Your task to perform on an android device: toggle javascript in the chrome app Image 0: 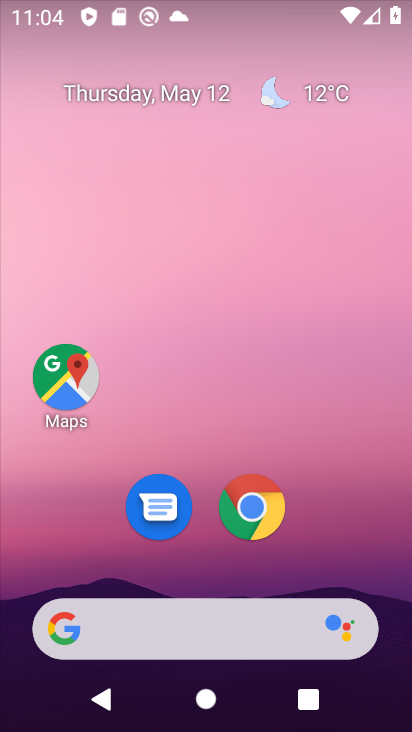
Step 0: click (255, 493)
Your task to perform on an android device: toggle javascript in the chrome app Image 1: 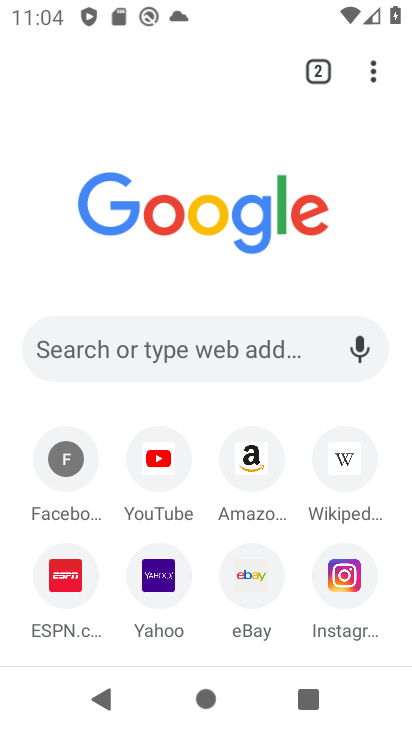
Step 1: click (385, 78)
Your task to perform on an android device: toggle javascript in the chrome app Image 2: 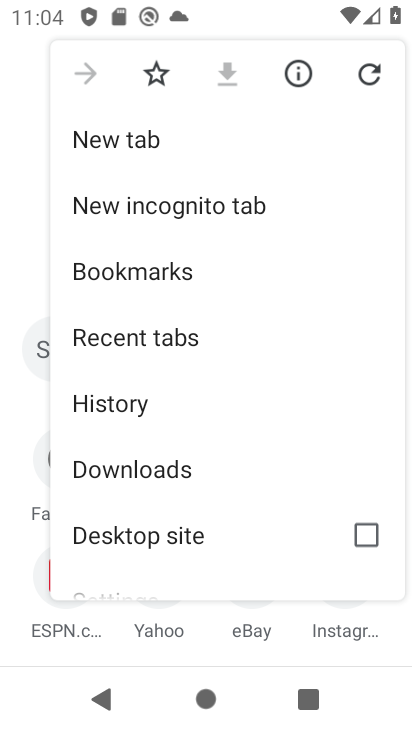
Step 2: drag from (162, 460) to (174, 171)
Your task to perform on an android device: toggle javascript in the chrome app Image 3: 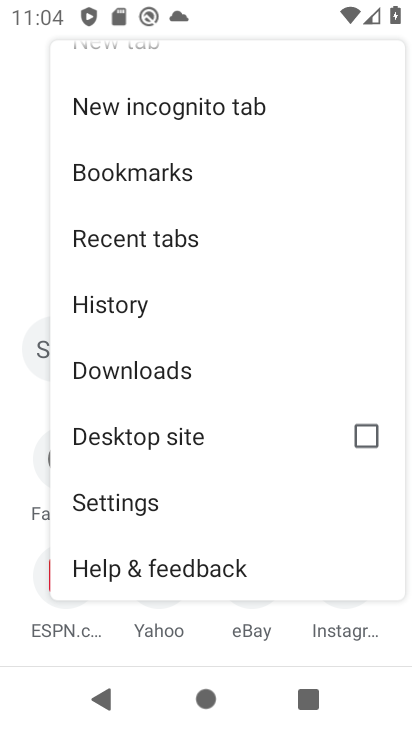
Step 3: click (132, 508)
Your task to perform on an android device: toggle javascript in the chrome app Image 4: 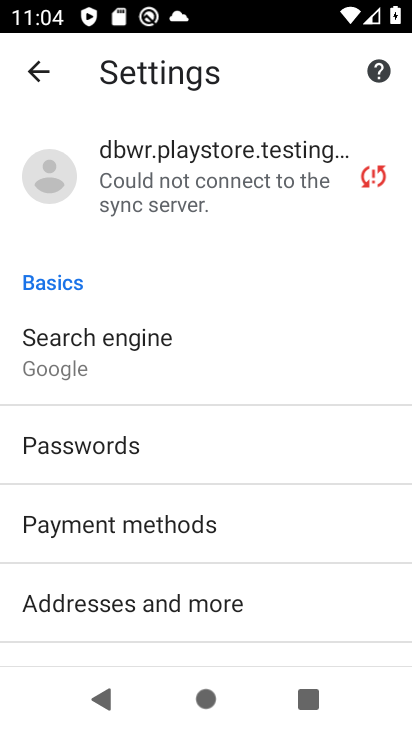
Step 4: drag from (151, 528) to (219, 235)
Your task to perform on an android device: toggle javascript in the chrome app Image 5: 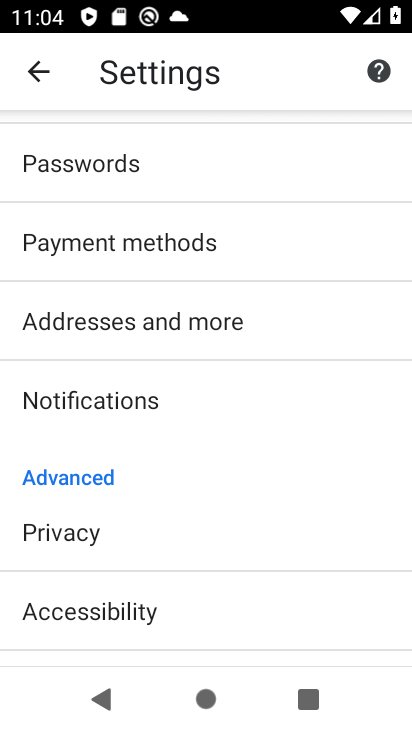
Step 5: drag from (133, 544) to (164, 288)
Your task to perform on an android device: toggle javascript in the chrome app Image 6: 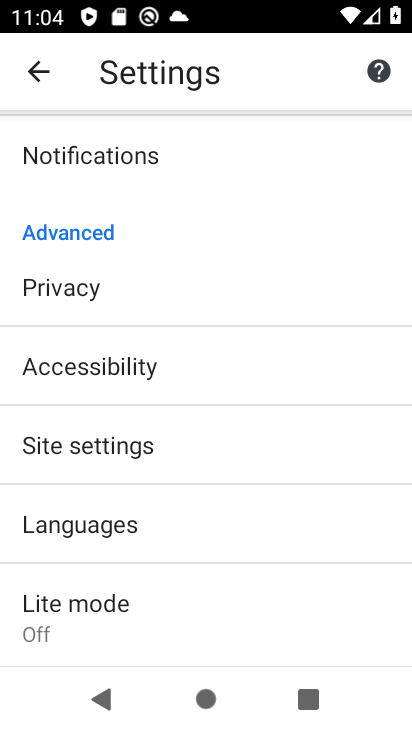
Step 6: click (137, 454)
Your task to perform on an android device: toggle javascript in the chrome app Image 7: 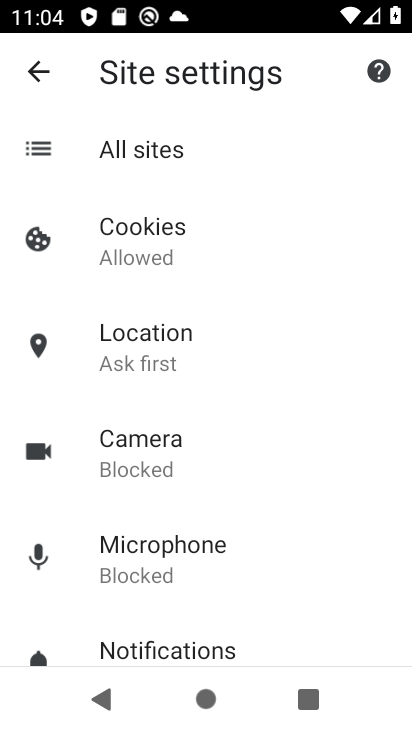
Step 7: drag from (173, 524) to (188, 293)
Your task to perform on an android device: toggle javascript in the chrome app Image 8: 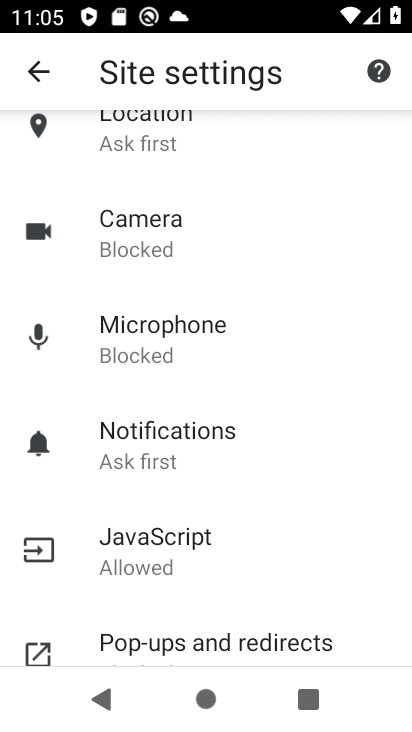
Step 8: click (193, 558)
Your task to perform on an android device: toggle javascript in the chrome app Image 9: 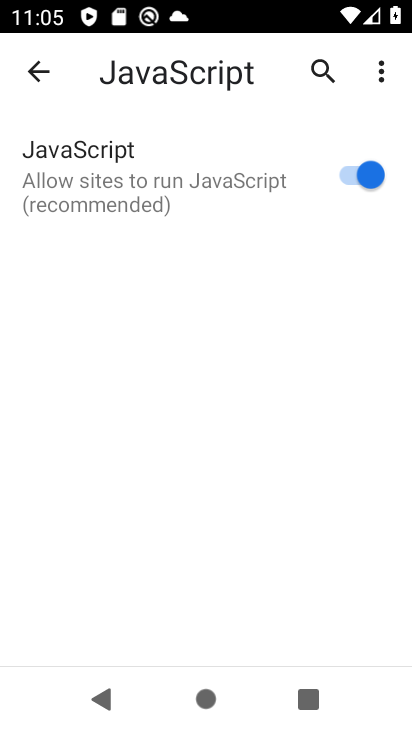
Step 9: click (347, 177)
Your task to perform on an android device: toggle javascript in the chrome app Image 10: 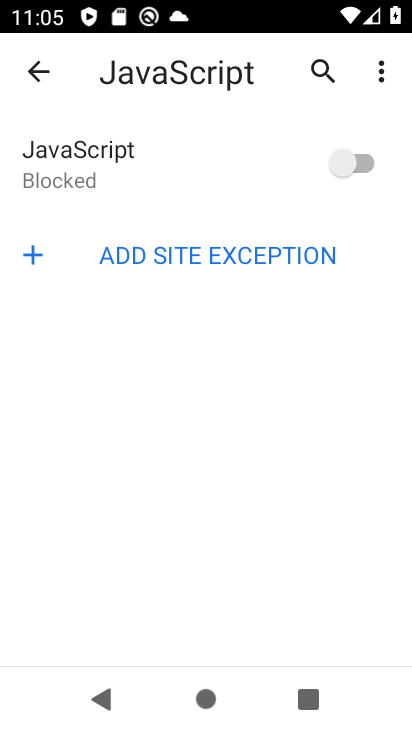
Step 10: task complete